Your task to perform on an android device: empty trash in the gmail app Image 0: 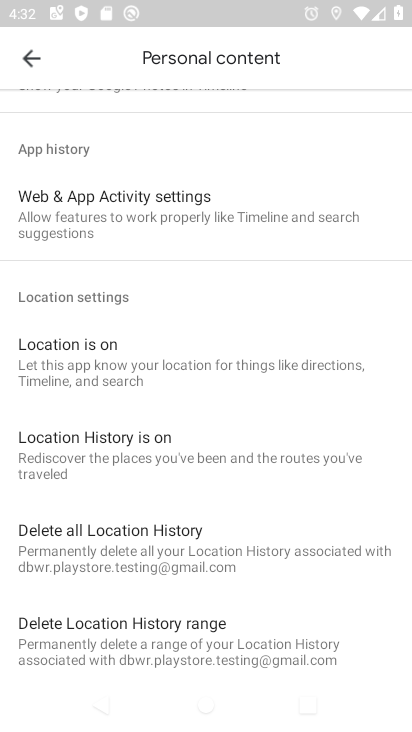
Step 0: click (25, 67)
Your task to perform on an android device: empty trash in the gmail app Image 1: 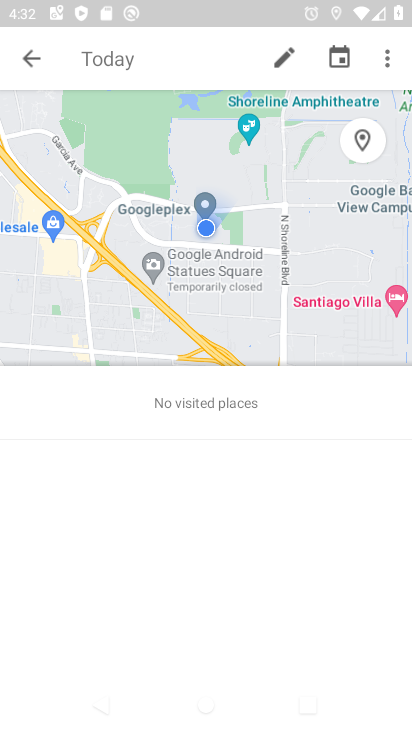
Step 1: press home button
Your task to perform on an android device: empty trash in the gmail app Image 2: 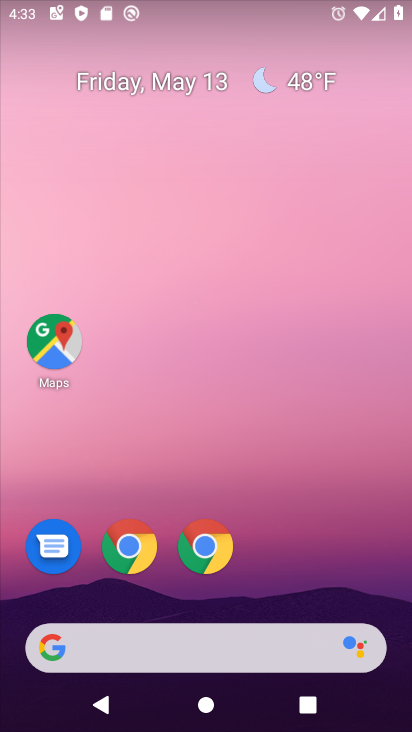
Step 2: drag from (256, 589) to (140, 0)
Your task to perform on an android device: empty trash in the gmail app Image 3: 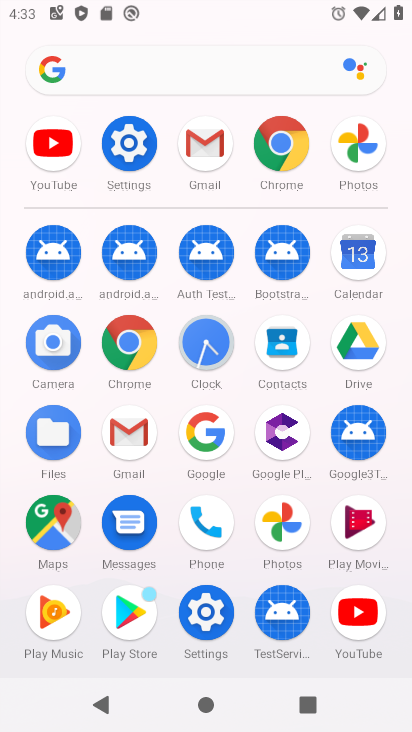
Step 3: click (125, 430)
Your task to perform on an android device: empty trash in the gmail app Image 4: 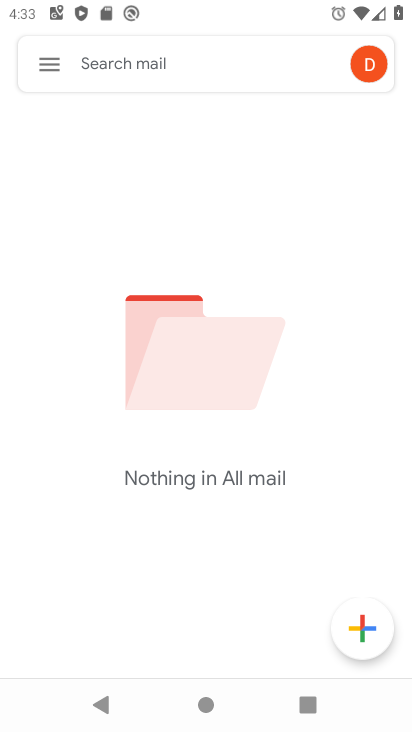
Step 4: click (56, 70)
Your task to perform on an android device: empty trash in the gmail app Image 5: 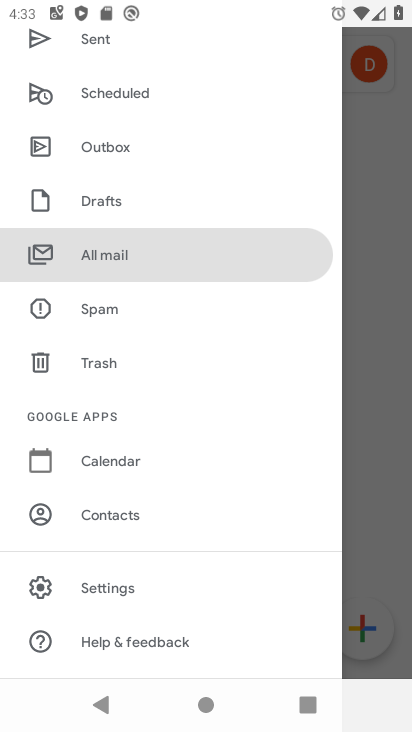
Step 5: click (98, 362)
Your task to perform on an android device: empty trash in the gmail app Image 6: 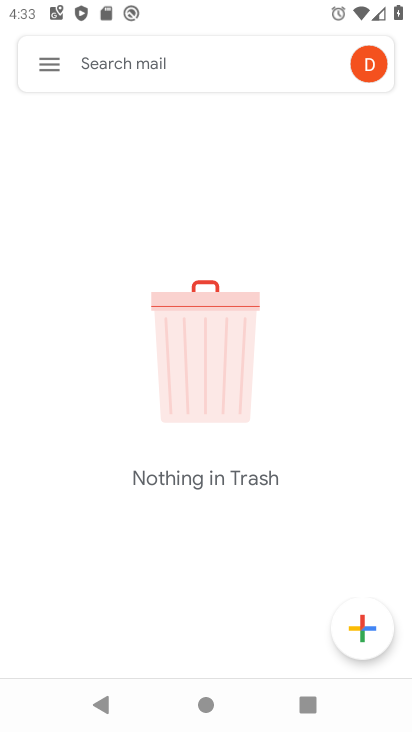
Step 6: task complete